Your task to perform on an android device: Go to Maps Image 0: 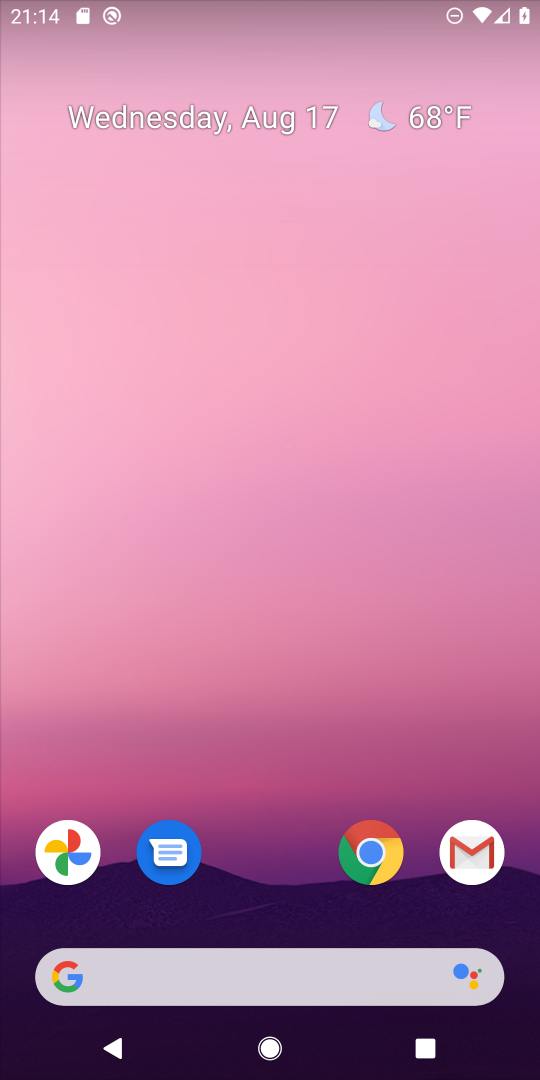
Step 0: drag from (253, 919) to (216, 331)
Your task to perform on an android device: Go to Maps Image 1: 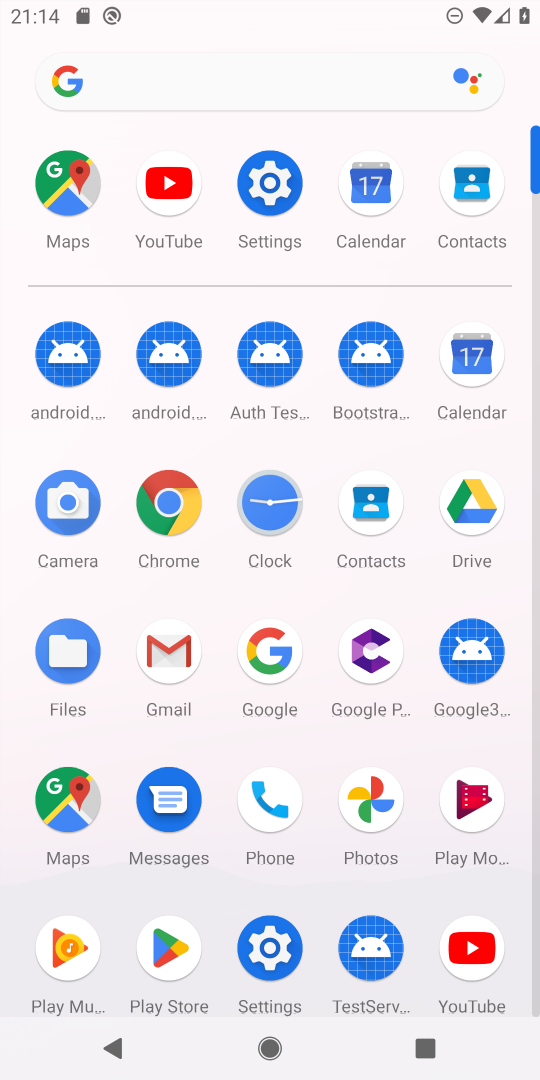
Step 1: click (67, 183)
Your task to perform on an android device: Go to Maps Image 2: 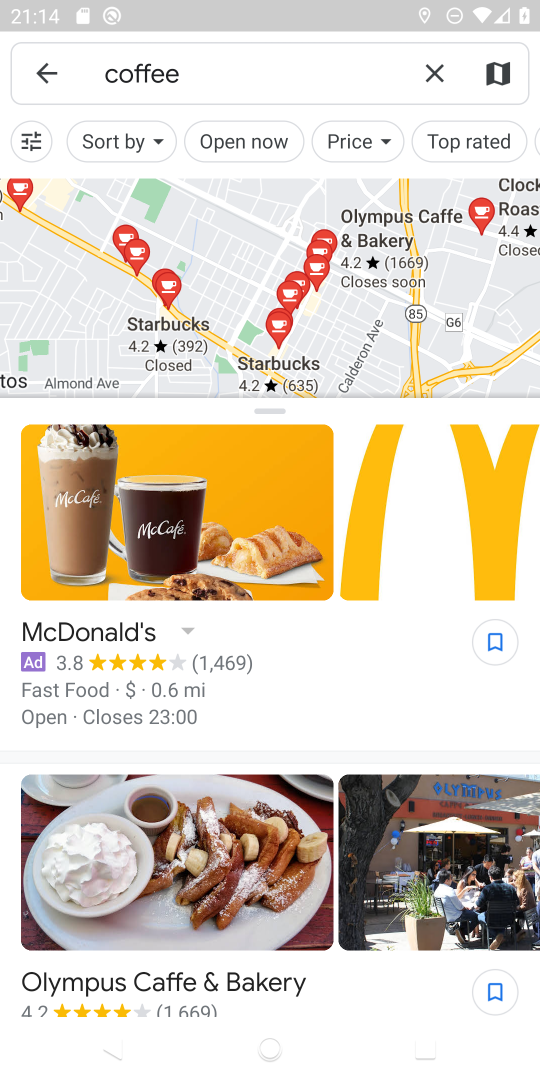
Step 2: click (40, 71)
Your task to perform on an android device: Go to Maps Image 3: 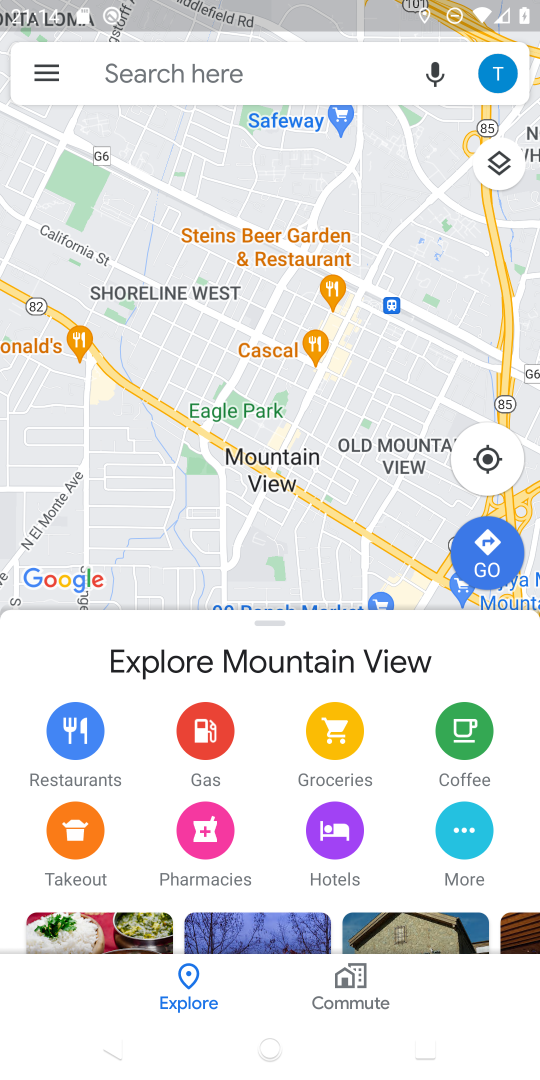
Step 3: task complete